Your task to perform on an android device: Do I have any events tomorrow? Image 0: 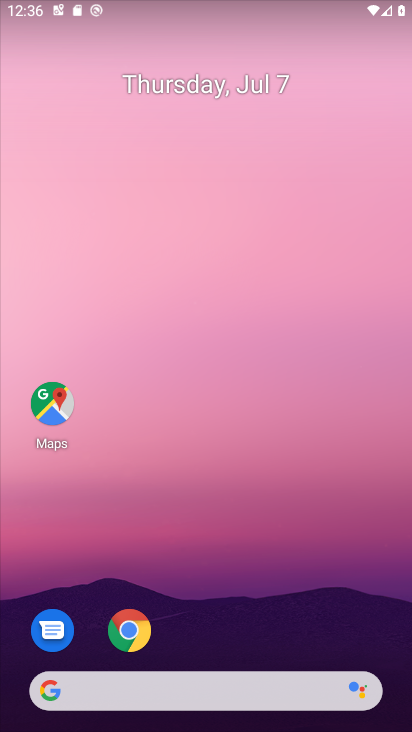
Step 0: drag from (236, 663) to (205, 264)
Your task to perform on an android device: Do I have any events tomorrow? Image 1: 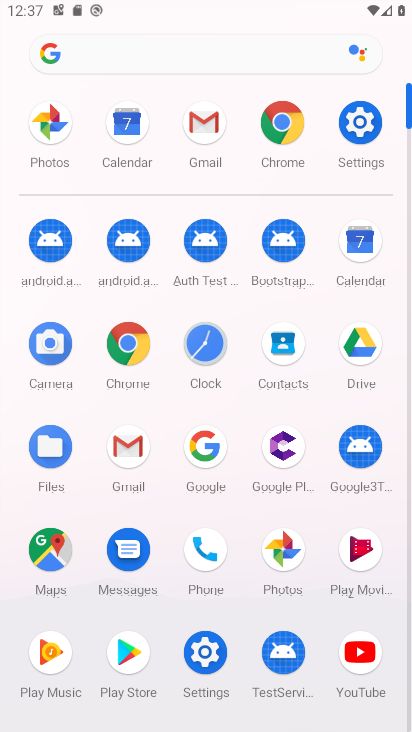
Step 1: click (359, 240)
Your task to perform on an android device: Do I have any events tomorrow? Image 2: 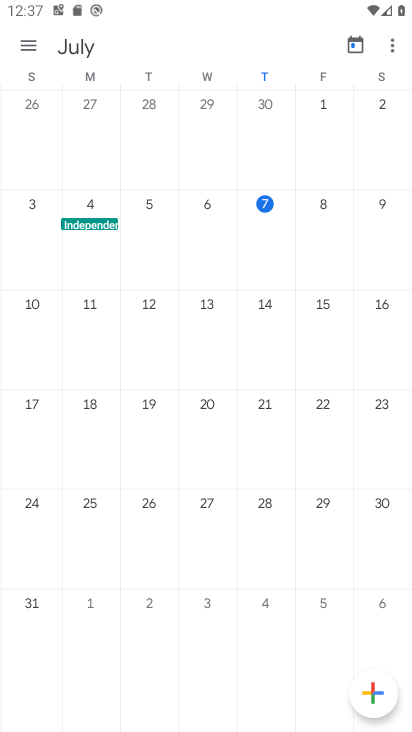
Step 2: click (327, 216)
Your task to perform on an android device: Do I have any events tomorrow? Image 3: 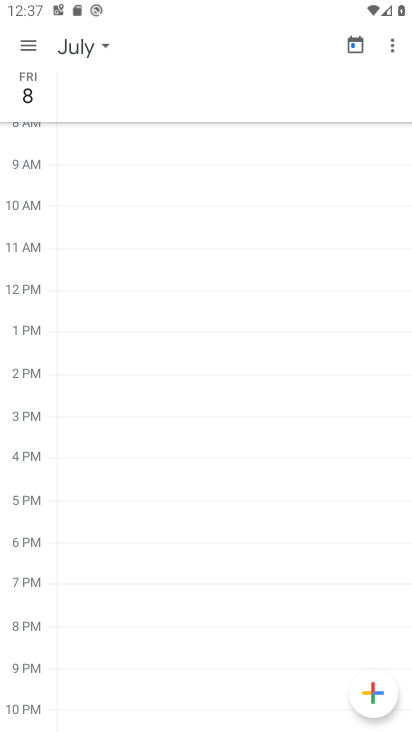
Step 3: task complete